Your task to perform on an android device: add a contact in the contacts app Image 0: 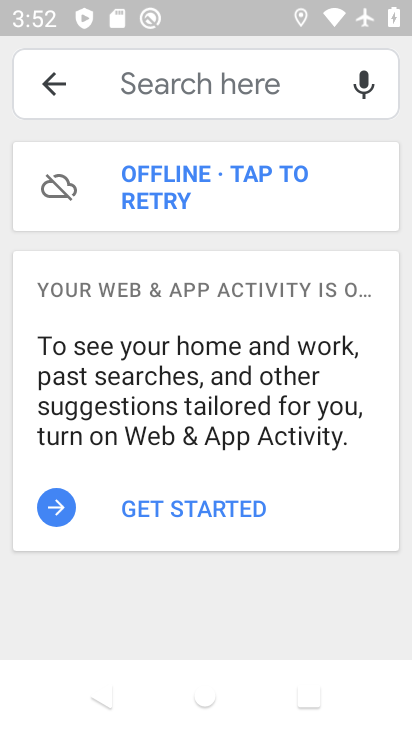
Step 0: press home button
Your task to perform on an android device: add a contact in the contacts app Image 1: 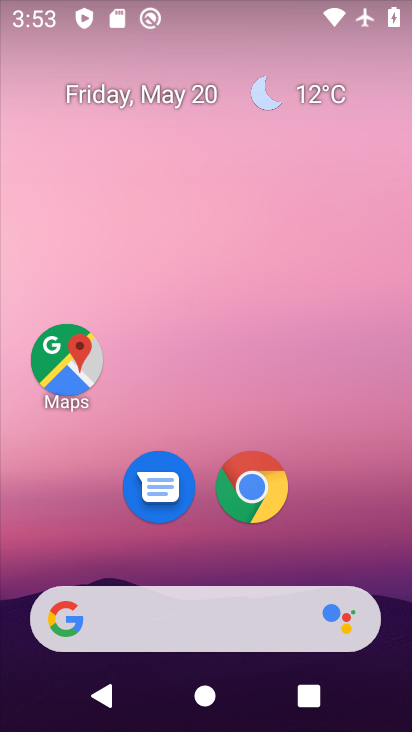
Step 1: drag from (299, 519) to (410, 346)
Your task to perform on an android device: add a contact in the contacts app Image 2: 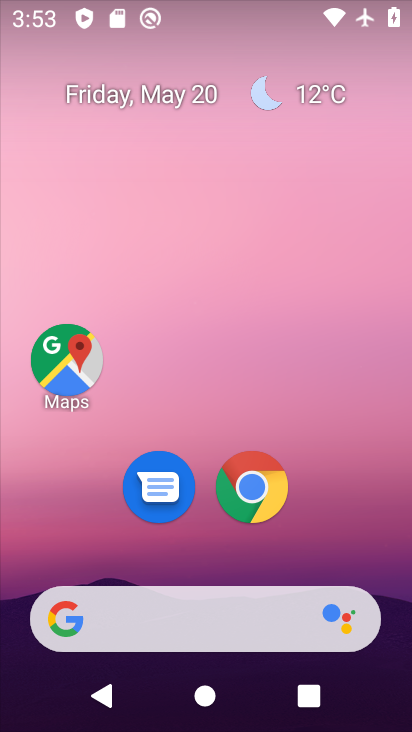
Step 2: drag from (310, 542) to (256, 22)
Your task to perform on an android device: add a contact in the contacts app Image 3: 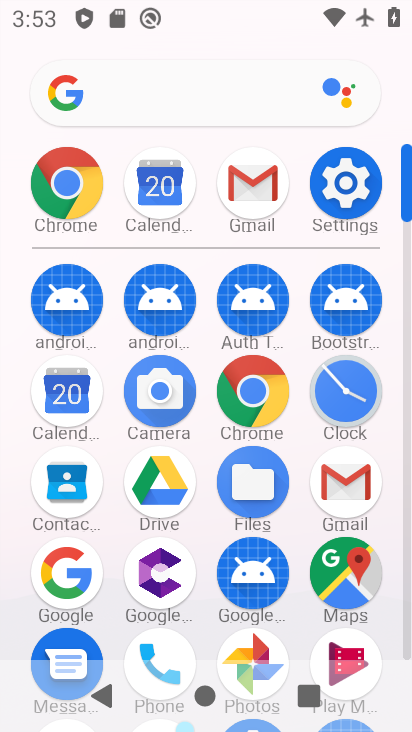
Step 3: click (76, 491)
Your task to perform on an android device: add a contact in the contacts app Image 4: 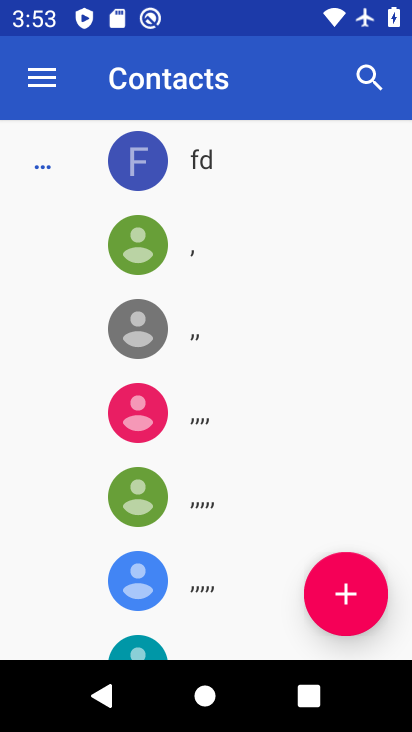
Step 4: click (335, 583)
Your task to perform on an android device: add a contact in the contacts app Image 5: 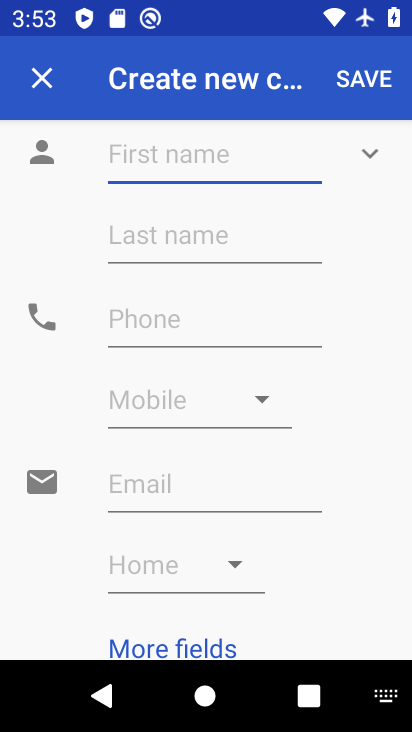
Step 5: click (237, 157)
Your task to perform on an android device: add a contact in the contacts app Image 6: 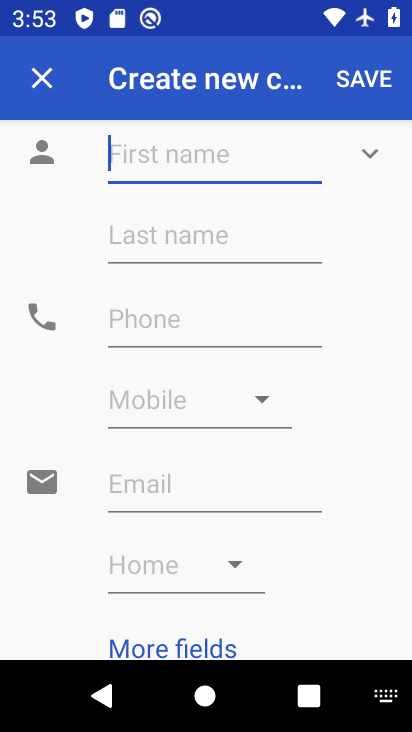
Step 6: type "Paneer"
Your task to perform on an android device: add a contact in the contacts app Image 7: 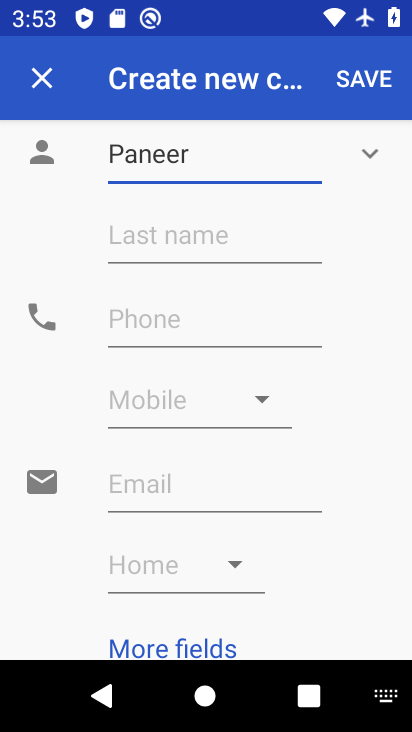
Step 7: click (184, 241)
Your task to perform on an android device: add a contact in the contacts app Image 8: 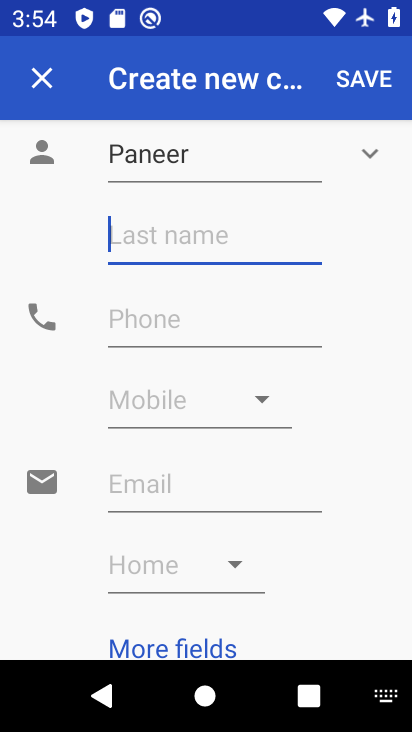
Step 8: type "shop"
Your task to perform on an android device: add a contact in the contacts app Image 9: 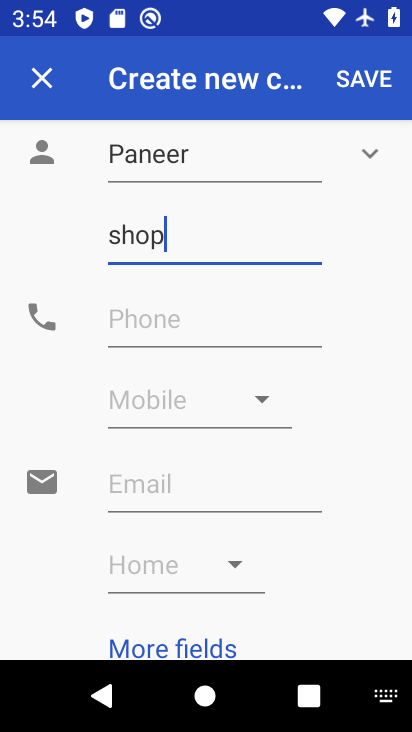
Step 9: click (252, 324)
Your task to perform on an android device: add a contact in the contacts app Image 10: 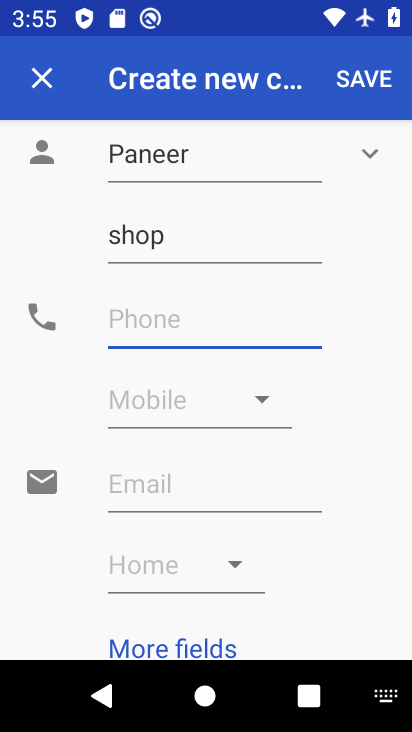
Step 10: click (141, 332)
Your task to perform on an android device: add a contact in the contacts app Image 11: 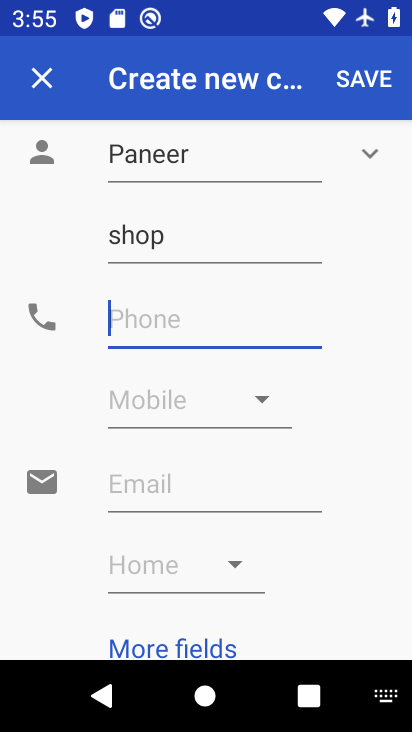
Step 11: type "9090090990"
Your task to perform on an android device: add a contact in the contacts app Image 12: 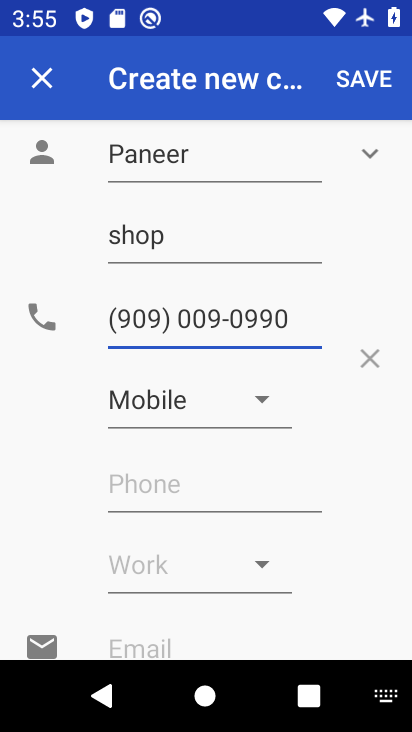
Step 12: task complete